Your task to perform on an android device: Open Google Maps and go to "Timeline" Image 0: 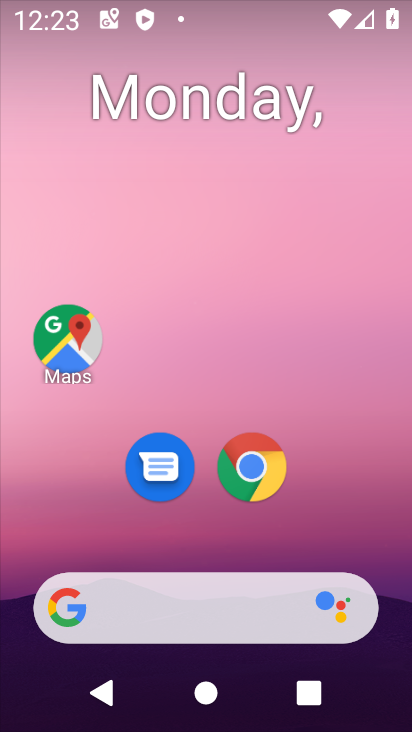
Step 0: click (65, 337)
Your task to perform on an android device: Open Google Maps and go to "Timeline" Image 1: 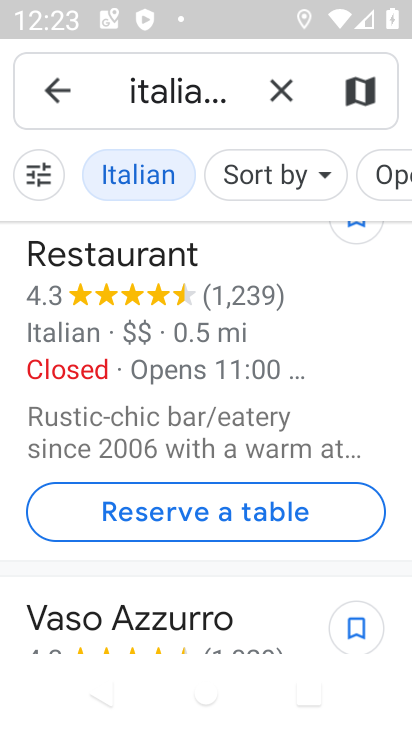
Step 1: press back button
Your task to perform on an android device: Open Google Maps and go to "Timeline" Image 2: 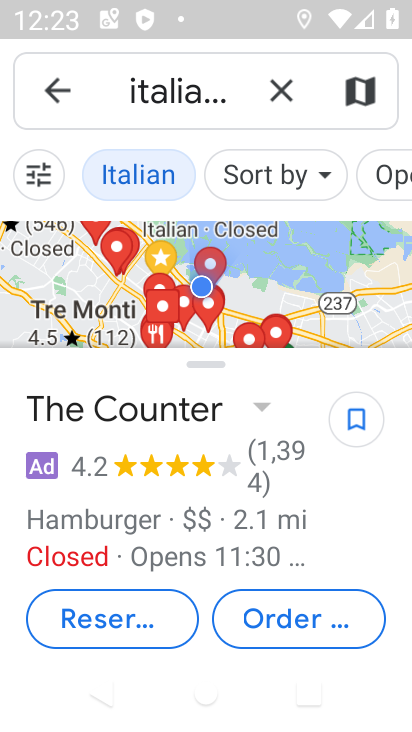
Step 2: click (46, 84)
Your task to perform on an android device: Open Google Maps and go to "Timeline" Image 3: 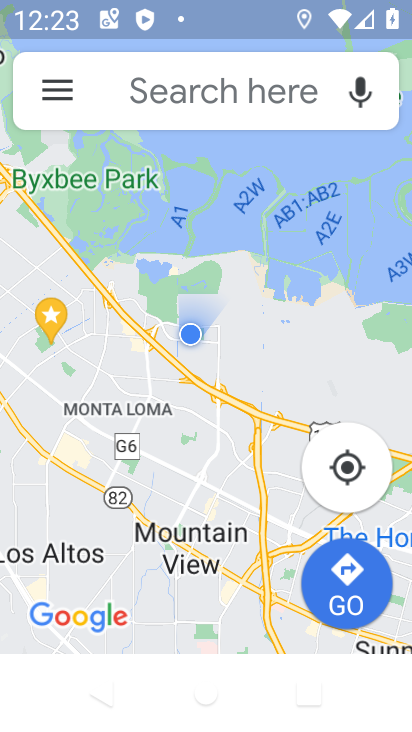
Step 3: click (179, 84)
Your task to perform on an android device: Open Google Maps and go to "Timeline" Image 4: 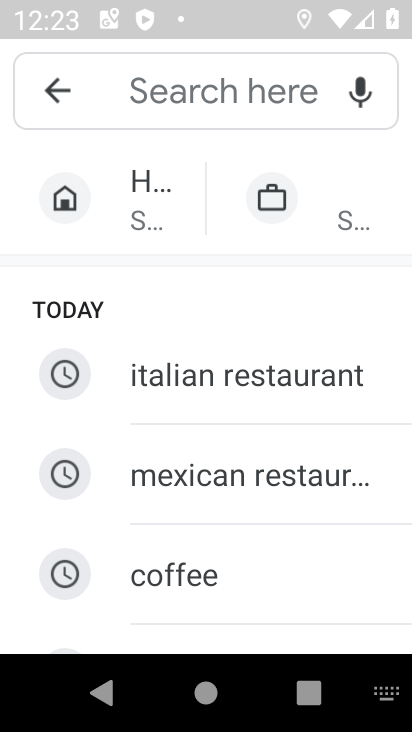
Step 4: click (51, 83)
Your task to perform on an android device: Open Google Maps and go to "Timeline" Image 5: 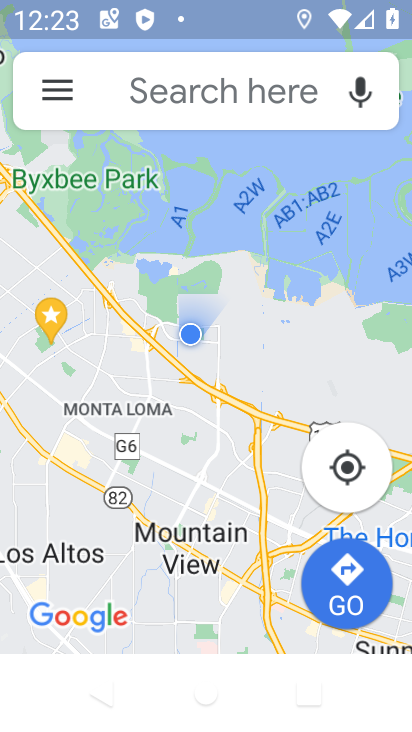
Step 5: click (51, 83)
Your task to perform on an android device: Open Google Maps and go to "Timeline" Image 6: 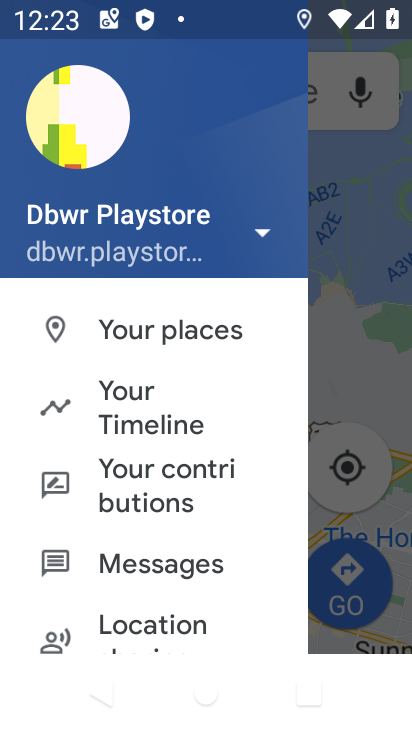
Step 6: click (134, 408)
Your task to perform on an android device: Open Google Maps and go to "Timeline" Image 7: 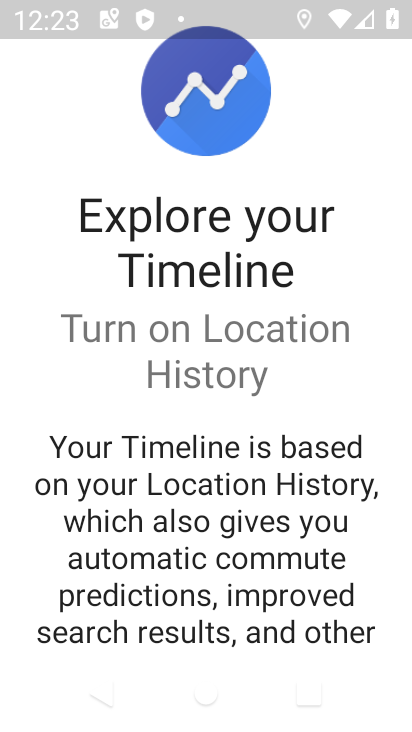
Step 7: drag from (178, 623) to (262, 176)
Your task to perform on an android device: Open Google Maps and go to "Timeline" Image 8: 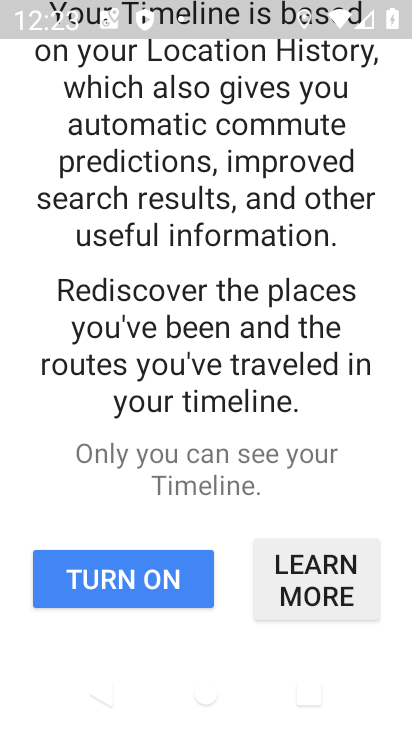
Step 8: drag from (248, 489) to (191, 119)
Your task to perform on an android device: Open Google Maps and go to "Timeline" Image 9: 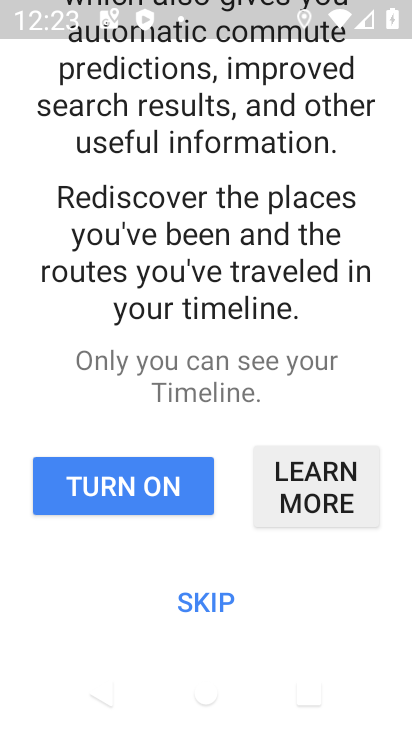
Step 9: click (201, 608)
Your task to perform on an android device: Open Google Maps and go to "Timeline" Image 10: 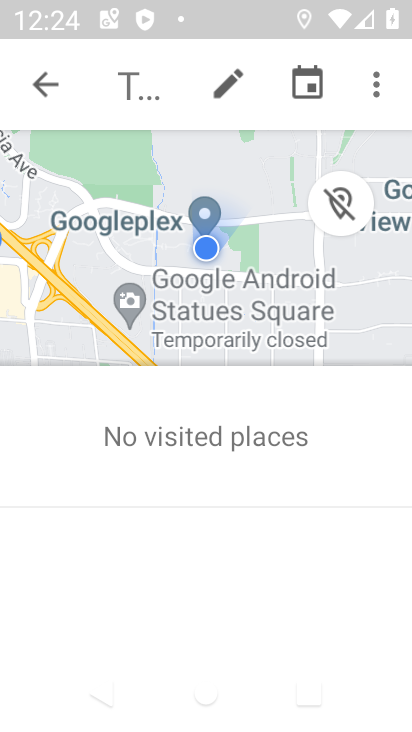
Step 10: task complete